Your task to perform on an android device: stop showing notifications on the lock screen Image 0: 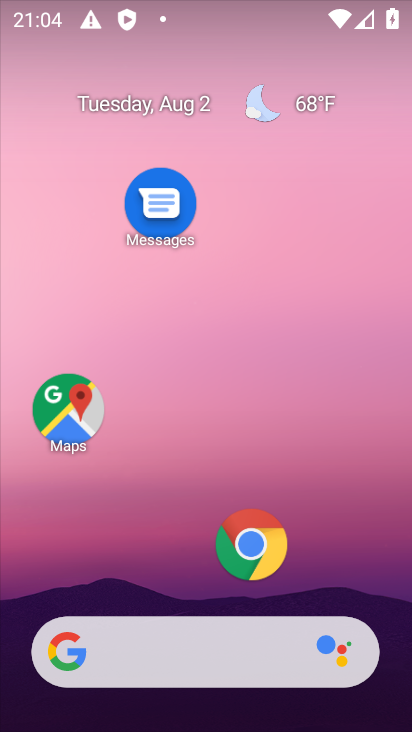
Step 0: drag from (183, 519) to (227, 17)
Your task to perform on an android device: stop showing notifications on the lock screen Image 1: 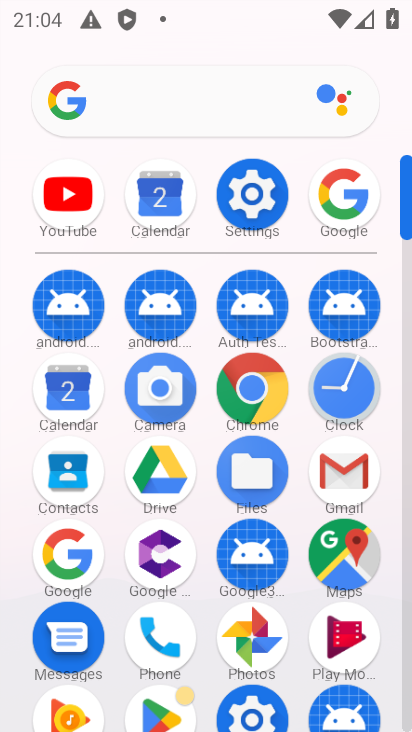
Step 1: click (247, 204)
Your task to perform on an android device: stop showing notifications on the lock screen Image 2: 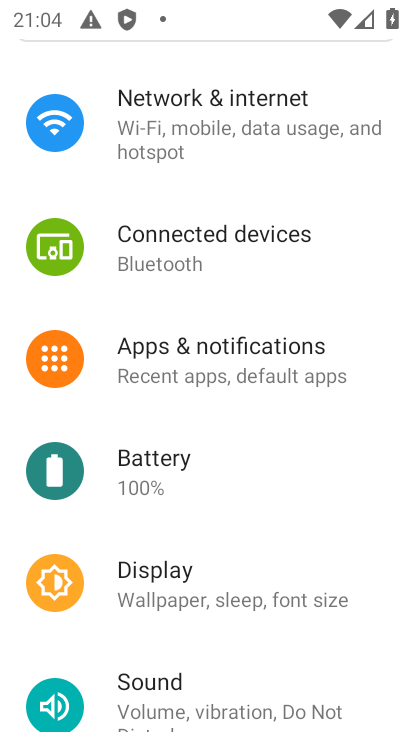
Step 2: click (223, 354)
Your task to perform on an android device: stop showing notifications on the lock screen Image 3: 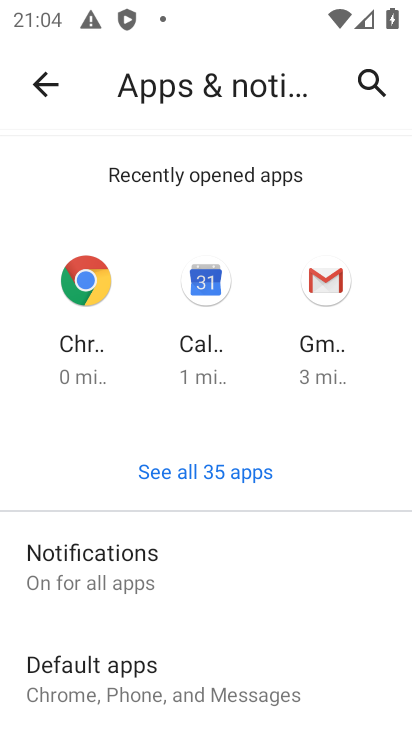
Step 3: click (164, 564)
Your task to perform on an android device: stop showing notifications on the lock screen Image 4: 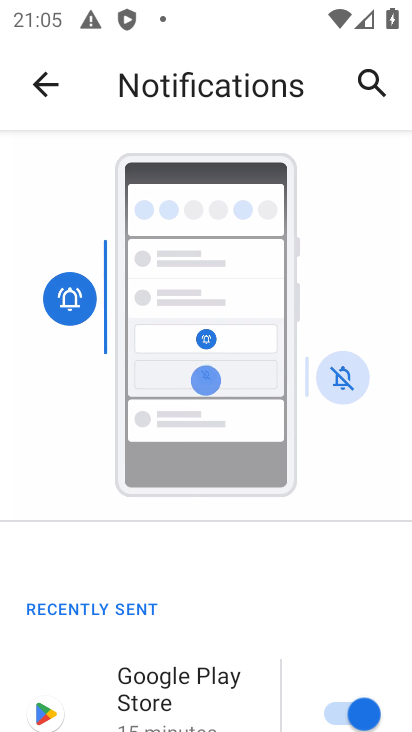
Step 4: drag from (221, 620) to (264, 249)
Your task to perform on an android device: stop showing notifications on the lock screen Image 5: 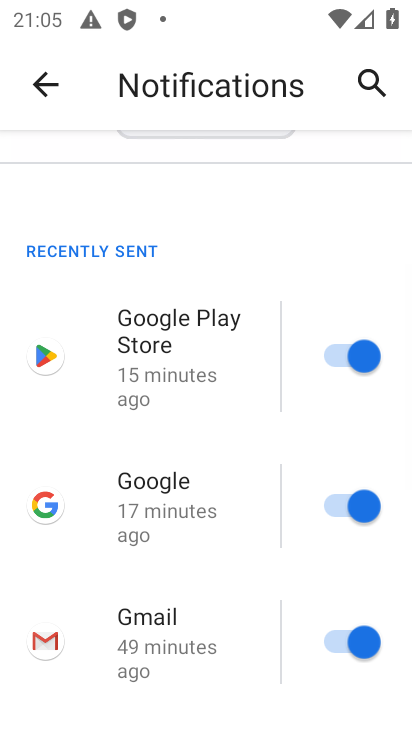
Step 5: drag from (208, 609) to (253, 254)
Your task to perform on an android device: stop showing notifications on the lock screen Image 6: 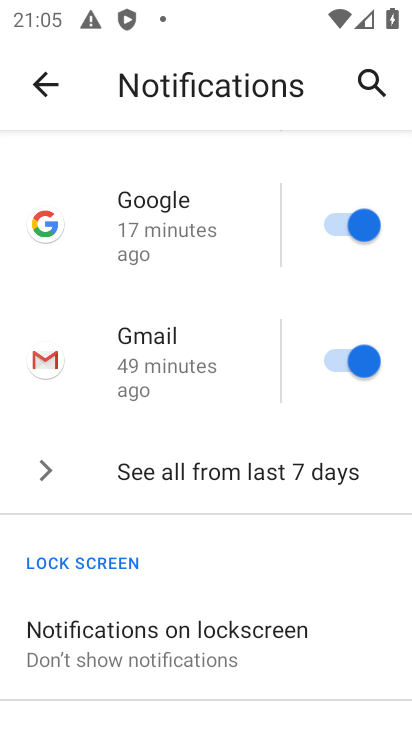
Step 6: click (194, 645)
Your task to perform on an android device: stop showing notifications on the lock screen Image 7: 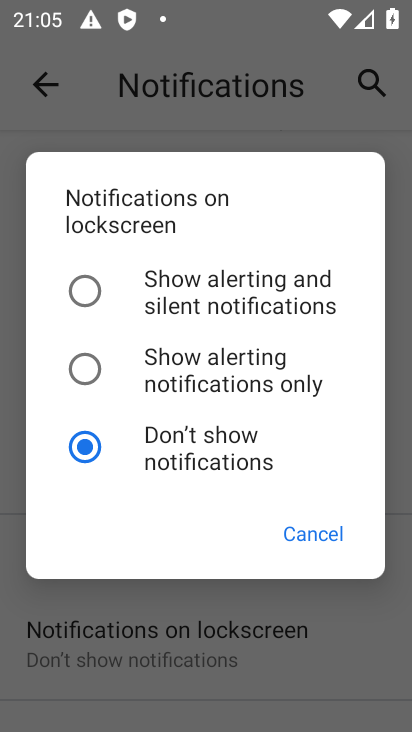
Step 7: task complete